Your task to perform on an android device: Show me popular videos on Youtube Image 0: 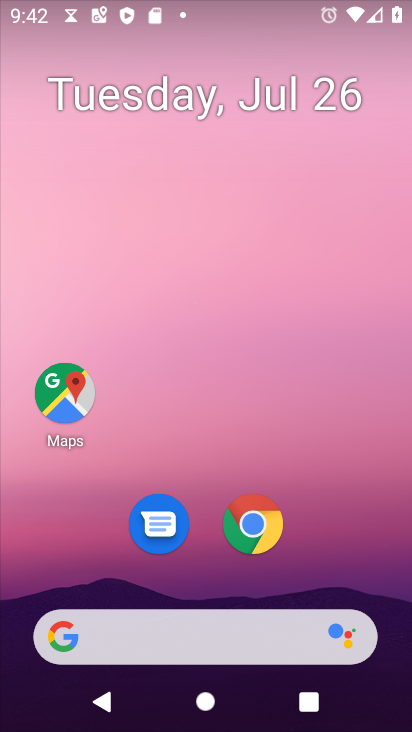
Step 0: press home button
Your task to perform on an android device: Show me popular videos on Youtube Image 1: 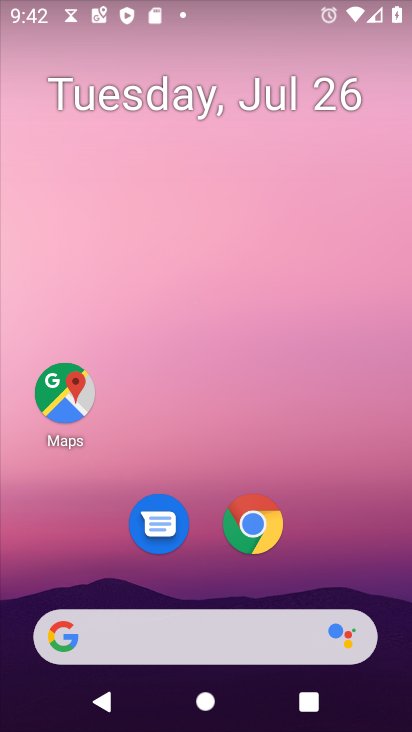
Step 1: drag from (187, 634) to (340, 147)
Your task to perform on an android device: Show me popular videos on Youtube Image 2: 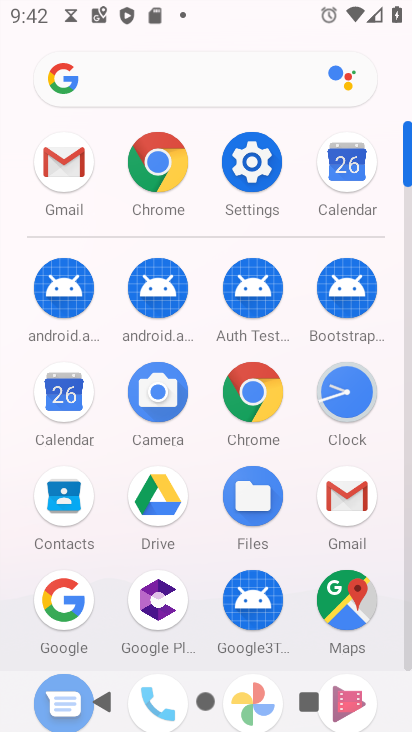
Step 2: drag from (203, 601) to (332, 90)
Your task to perform on an android device: Show me popular videos on Youtube Image 3: 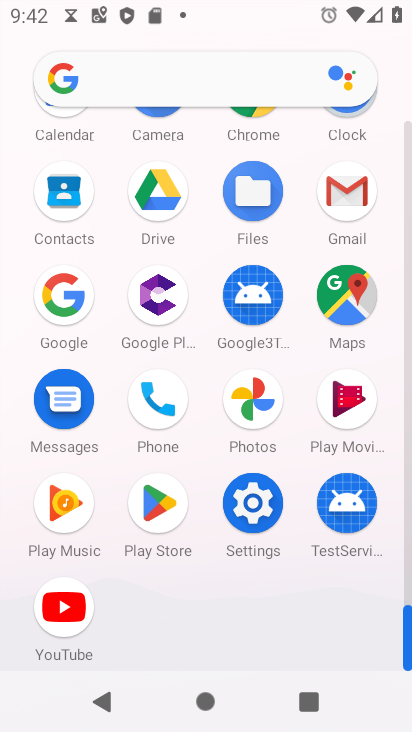
Step 3: click (69, 619)
Your task to perform on an android device: Show me popular videos on Youtube Image 4: 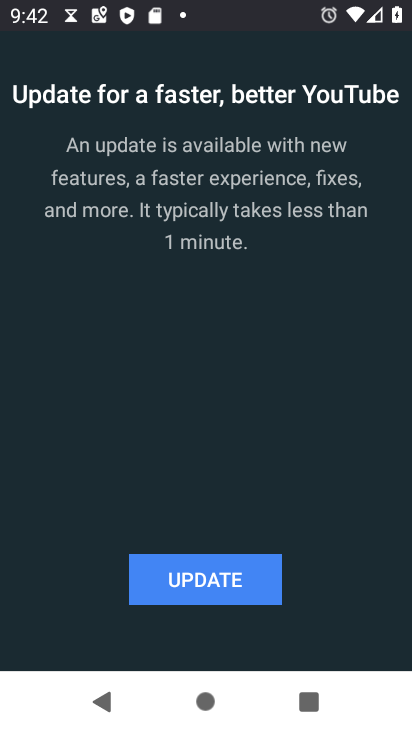
Step 4: click (230, 581)
Your task to perform on an android device: Show me popular videos on Youtube Image 5: 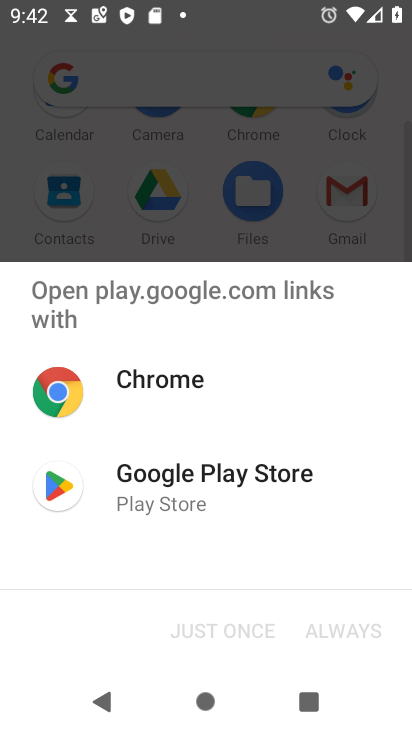
Step 5: click (169, 482)
Your task to perform on an android device: Show me popular videos on Youtube Image 6: 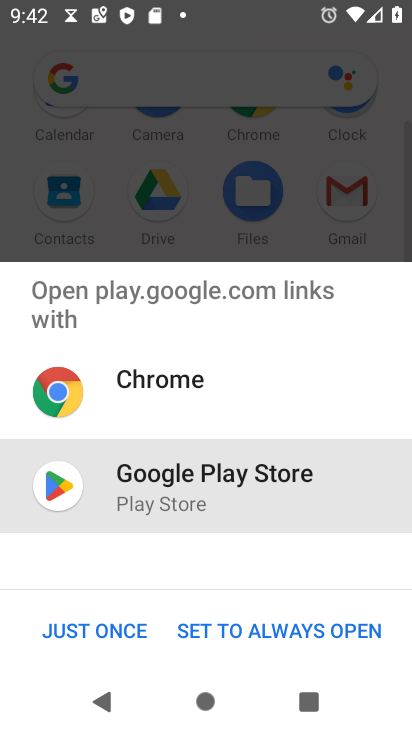
Step 6: click (115, 631)
Your task to perform on an android device: Show me popular videos on Youtube Image 7: 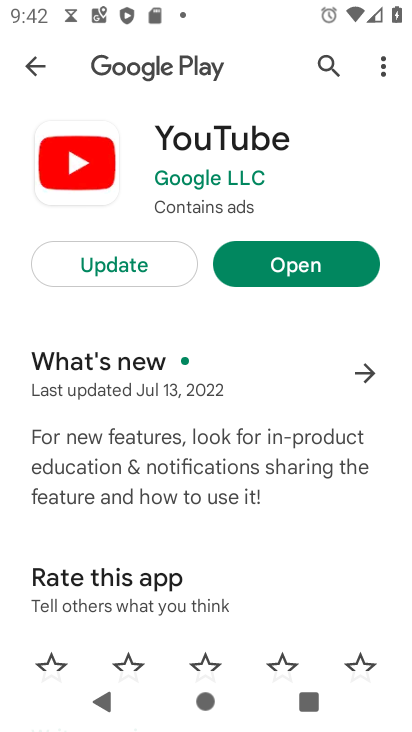
Step 7: click (129, 266)
Your task to perform on an android device: Show me popular videos on Youtube Image 8: 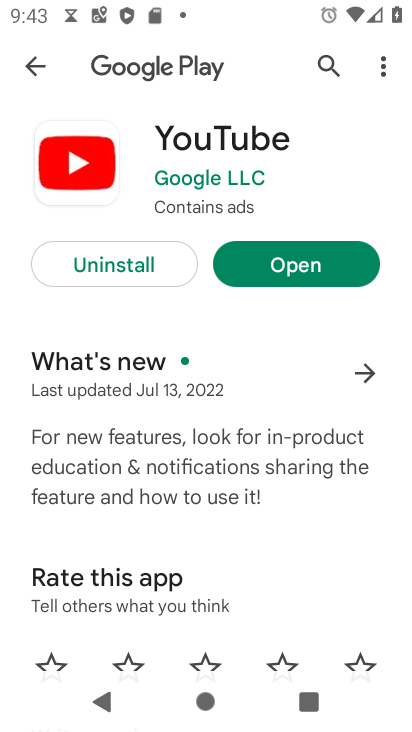
Step 8: click (284, 267)
Your task to perform on an android device: Show me popular videos on Youtube Image 9: 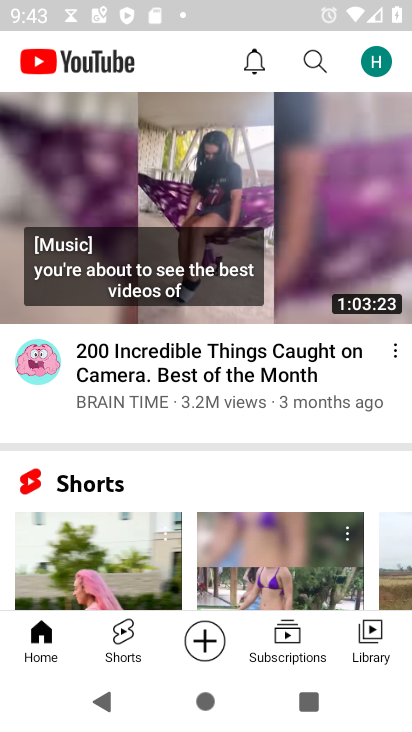
Step 9: task complete